Your task to perform on an android device: Open Chrome and go to settings Image 0: 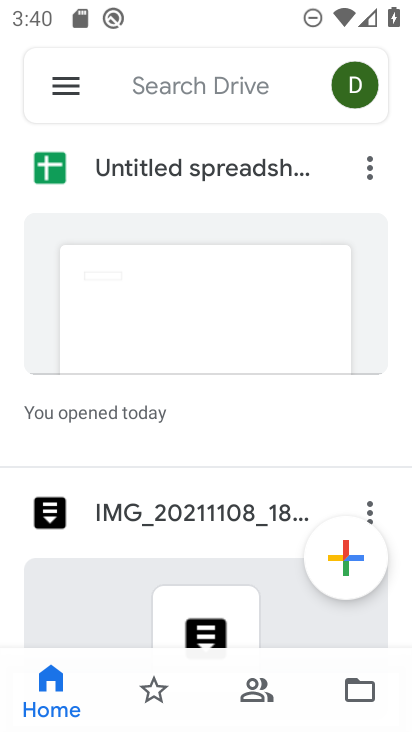
Step 0: press home button
Your task to perform on an android device: Open Chrome and go to settings Image 1: 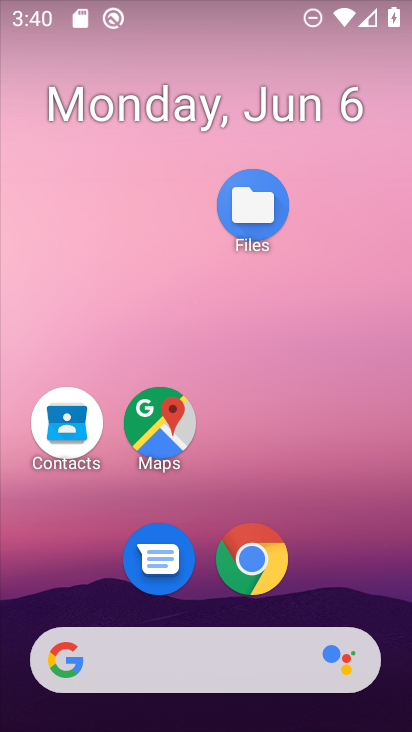
Step 1: drag from (188, 612) to (148, 47)
Your task to perform on an android device: Open Chrome and go to settings Image 2: 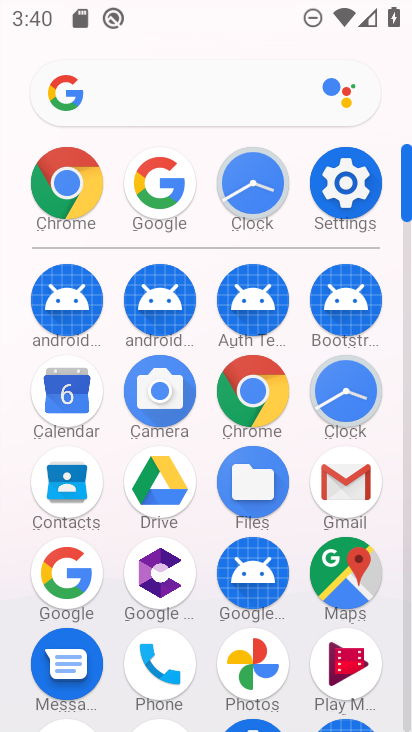
Step 2: click (241, 399)
Your task to perform on an android device: Open Chrome and go to settings Image 3: 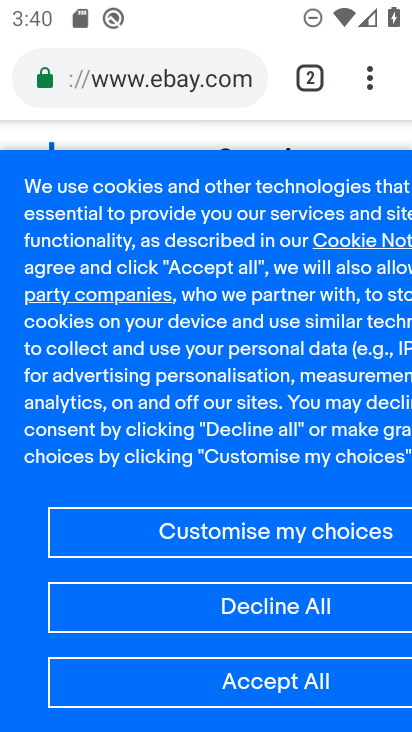
Step 3: click (360, 72)
Your task to perform on an android device: Open Chrome and go to settings Image 4: 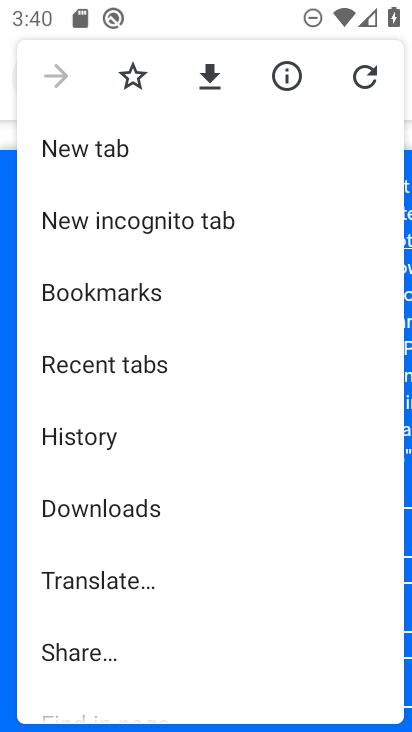
Step 4: drag from (140, 642) to (113, 446)
Your task to perform on an android device: Open Chrome and go to settings Image 5: 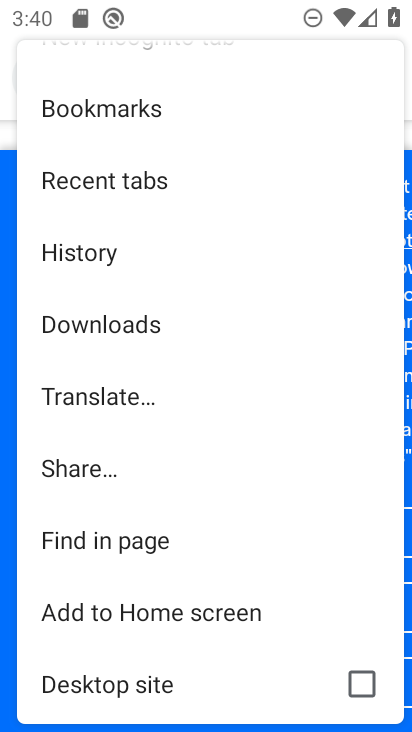
Step 5: drag from (143, 562) to (104, 378)
Your task to perform on an android device: Open Chrome and go to settings Image 6: 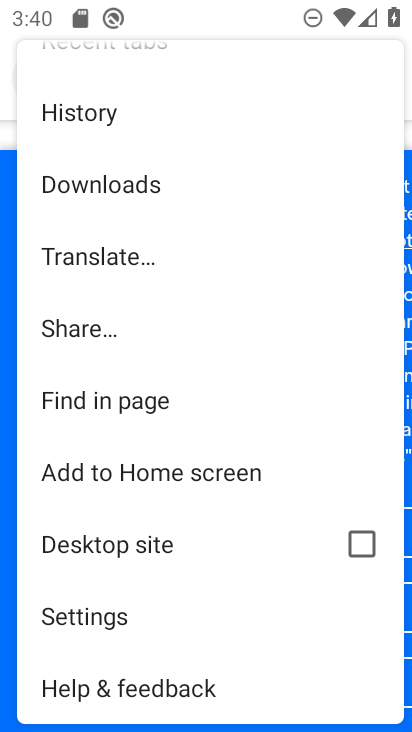
Step 6: click (141, 619)
Your task to perform on an android device: Open Chrome and go to settings Image 7: 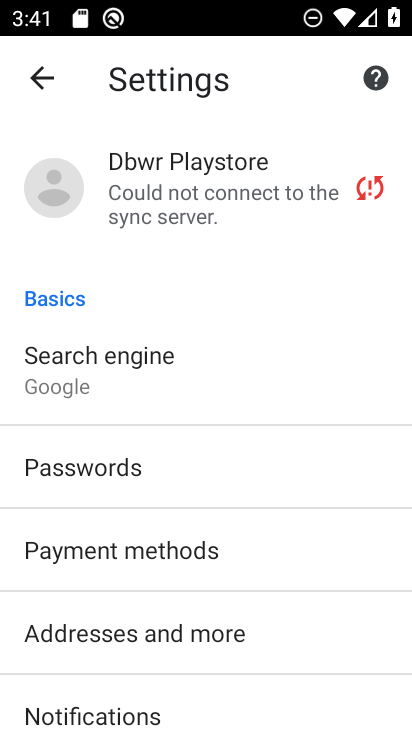
Step 7: task complete